Your task to perform on an android device: Open privacy settings Image 0: 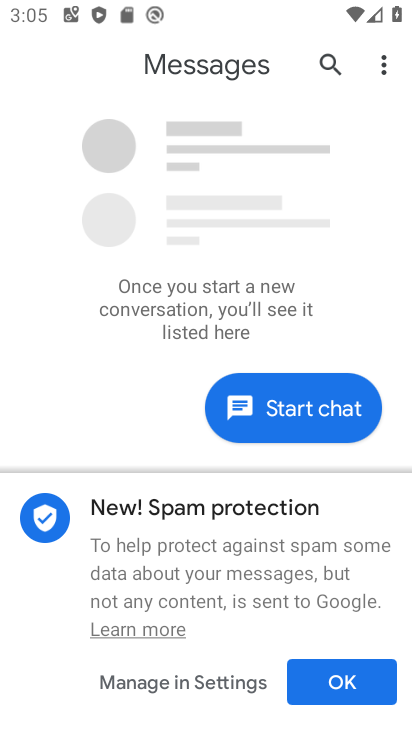
Step 0: press home button
Your task to perform on an android device: Open privacy settings Image 1: 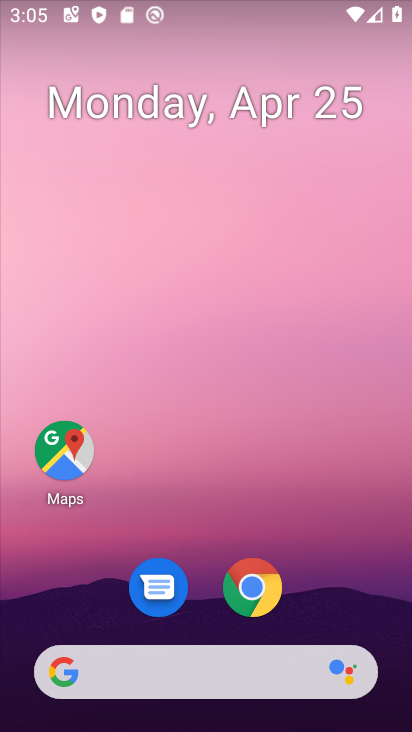
Step 1: click (254, 590)
Your task to perform on an android device: Open privacy settings Image 2: 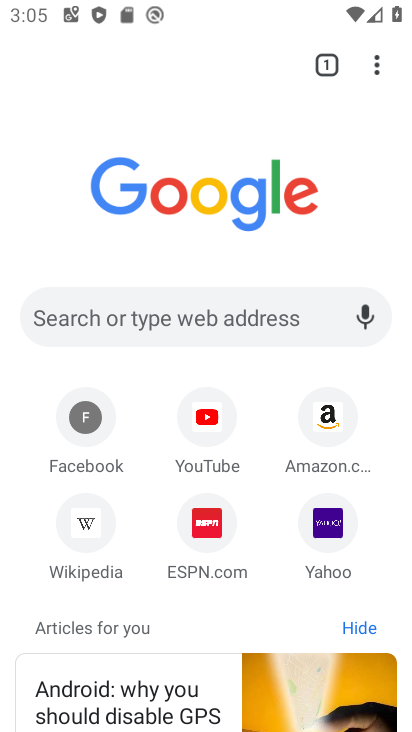
Step 2: click (371, 60)
Your task to perform on an android device: Open privacy settings Image 3: 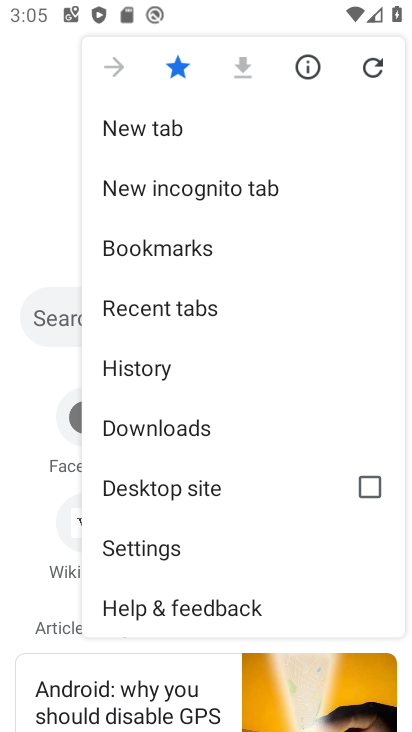
Step 3: click (175, 546)
Your task to perform on an android device: Open privacy settings Image 4: 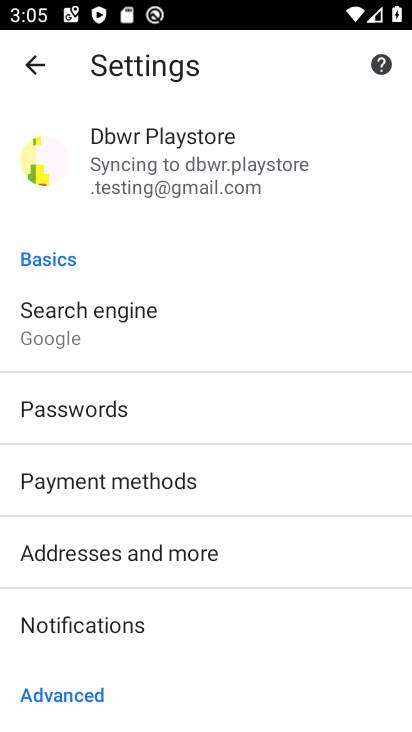
Step 4: drag from (130, 528) to (178, 263)
Your task to perform on an android device: Open privacy settings Image 5: 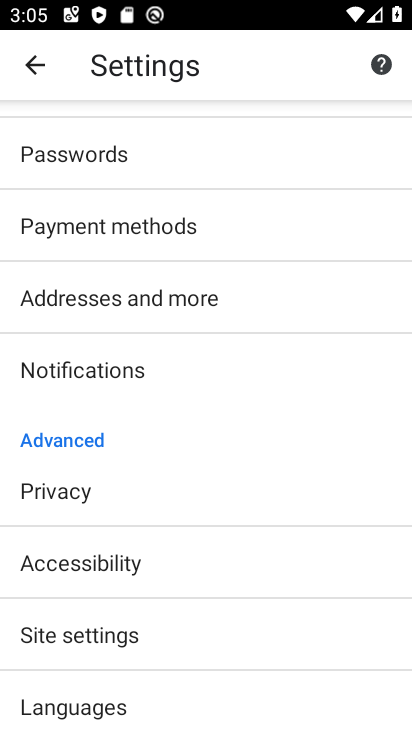
Step 5: click (78, 490)
Your task to perform on an android device: Open privacy settings Image 6: 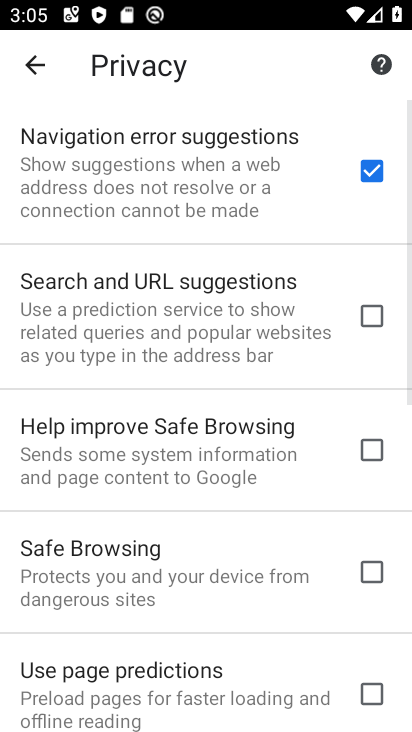
Step 6: task complete